Your task to perform on an android device: open wifi settings Image 0: 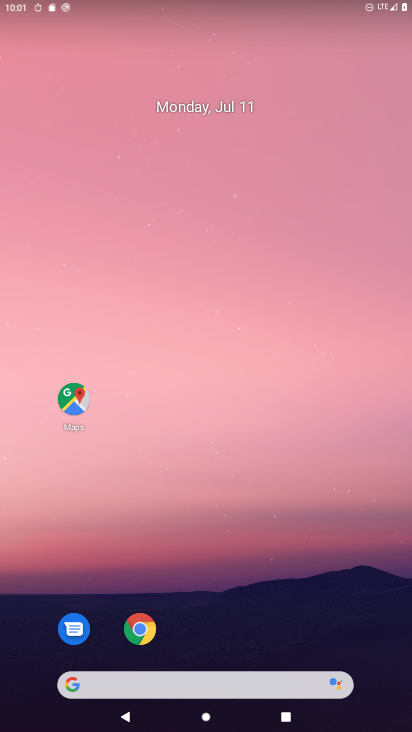
Step 0: drag from (185, 2) to (169, 452)
Your task to perform on an android device: open wifi settings Image 1: 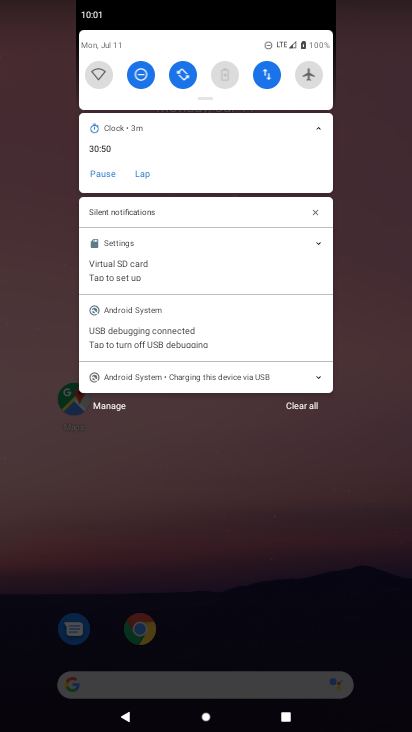
Step 1: click (95, 77)
Your task to perform on an android device: open wifi settings Image 2: 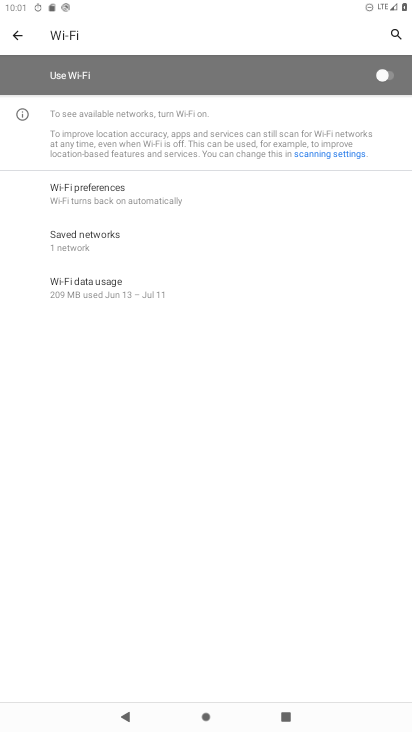
Step 2: task complete